Your task to perform on an android device: Go to Google maps Image 0: 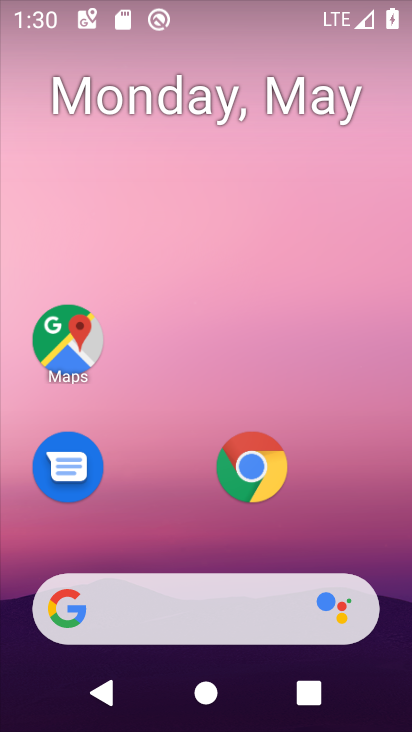
Step 0: drag from (184, 548) to (187, 116)
Your task to perform on an android device: Go to Google maps Image 1: 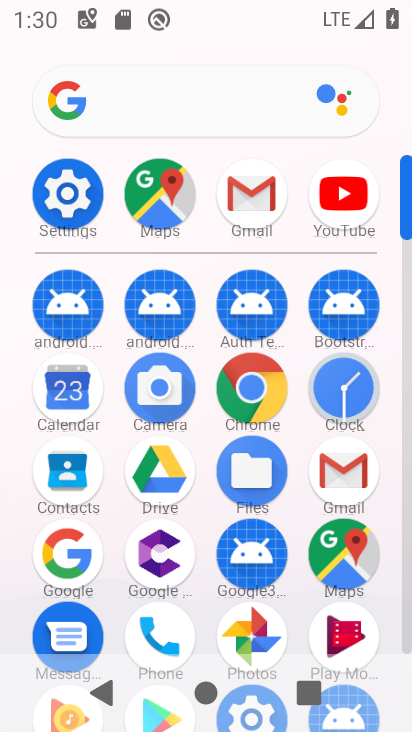
Step 1: drag from (211, 596) to (220, 235)
Your task to perform on an android device: Go to Google maps Image 2: 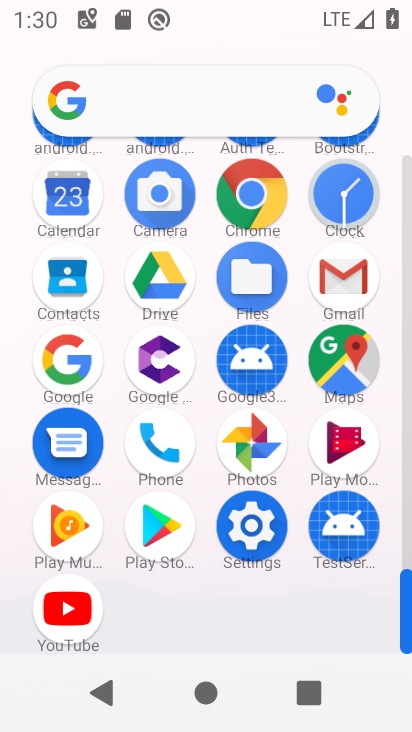
Step 2: click (81, 371)
Your task to perform on an android device: Go to Google maps Image 3: 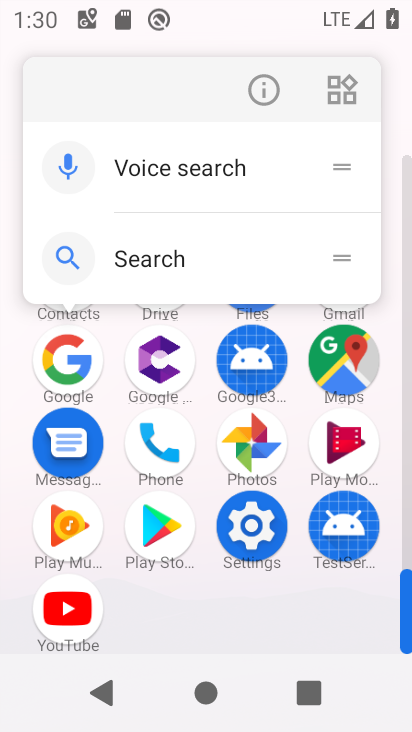
Step 3: click (262, 97)
Your task to perform on an android device: Go to Google maps Image 4: 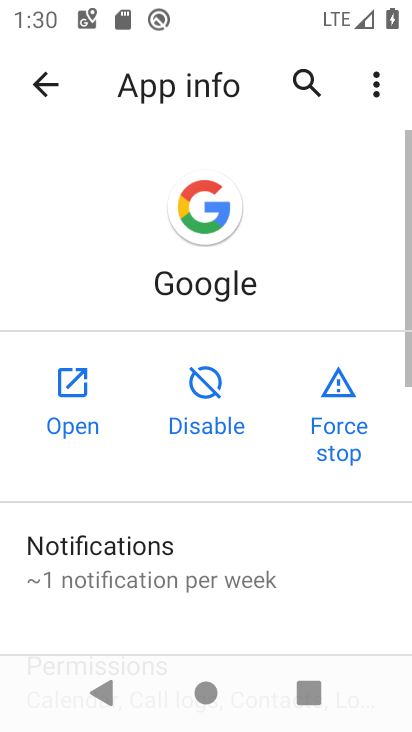
Step 4: press home button
Your task to perform on an android device: Go to Google maps Image 5: 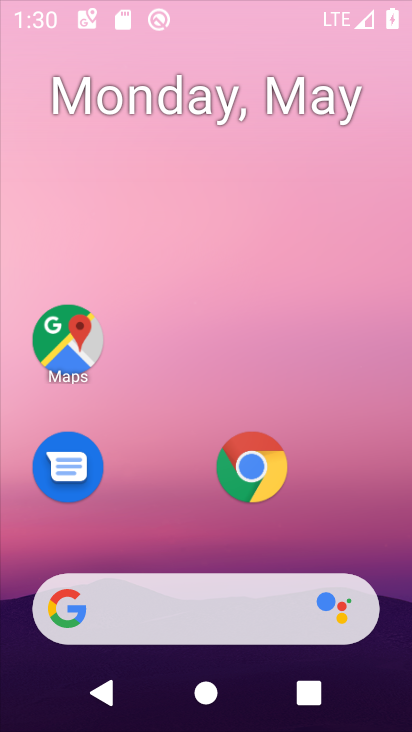
Step 5: drag from (177, 637) to (246, 220)
Your task to perform on an android device: Go to Google maps Image 6: 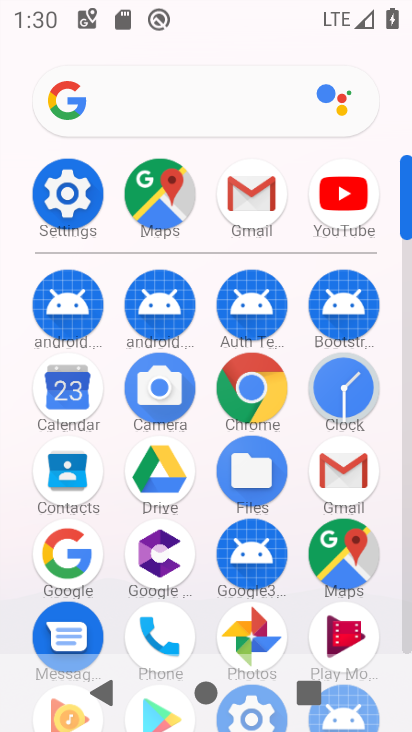
Step 6: click (346, 551)
Your task to perform on an android device: Go to Google maps Image 7: 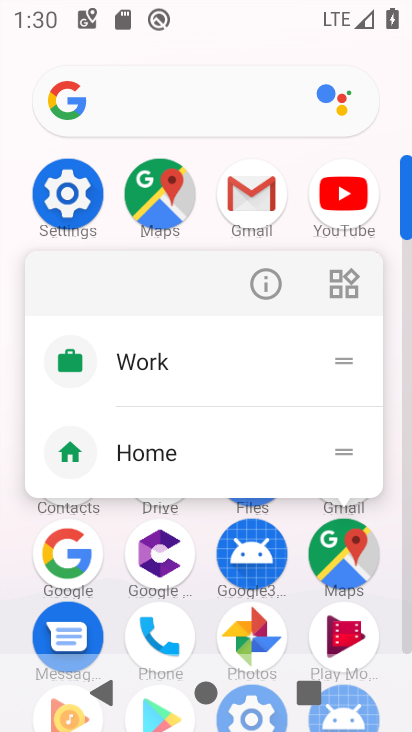
Step 7: click (267, 294)
Your task to perform on an android device: Go to Google maps Image 8: 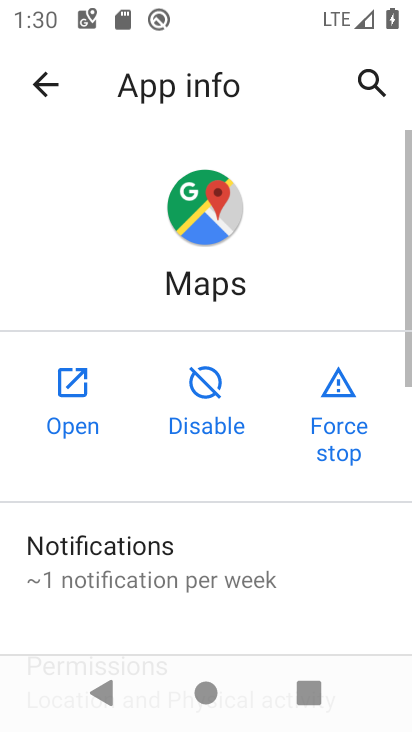
Step 8: click (61, 411)
Your task to perform on an android device: Go to Google maps Image 9: 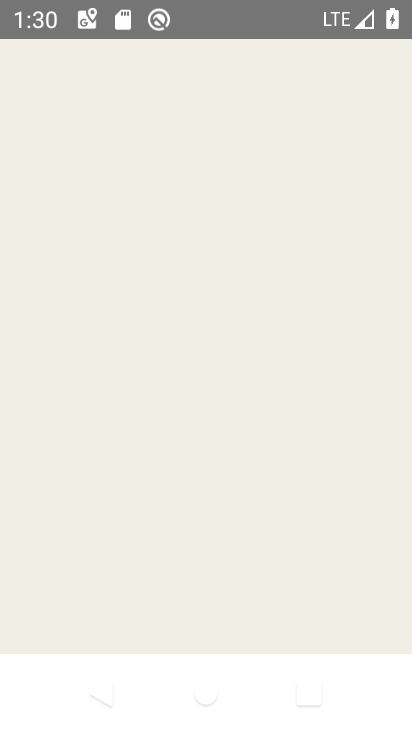
Step 9: task complete